Your task to perform on an android device: toggle improve location accuracy Image 0: 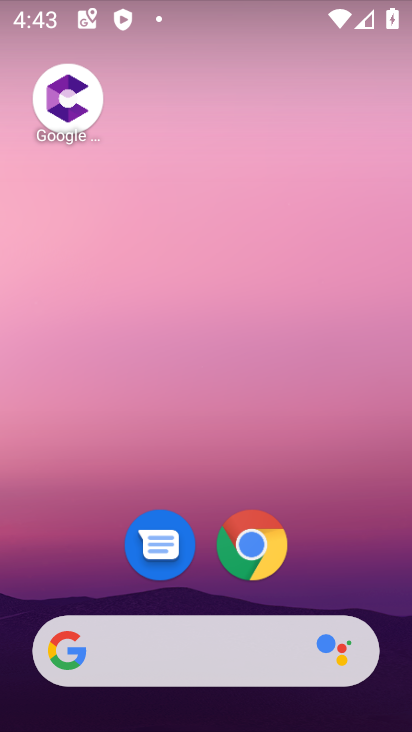
Step 0: drag from (345, 570) to (281, 55)
Your task to perform on an android device: toggle improve location accuracy Image 1: 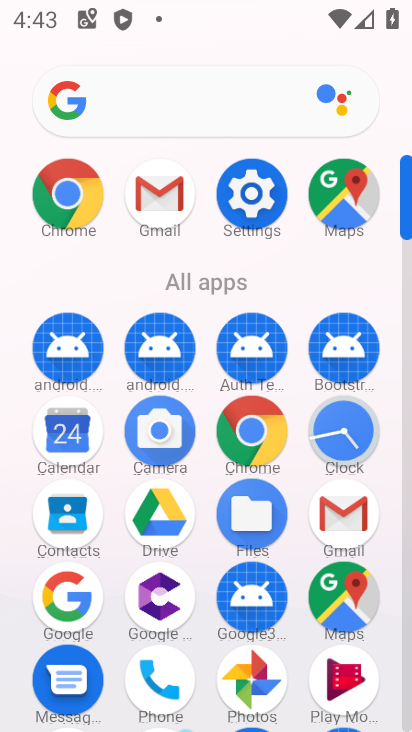
Step 1: drag from (14, 562) to (14, 186)
Your task to perform on an android device: toggle improve location accuracy Image 2: 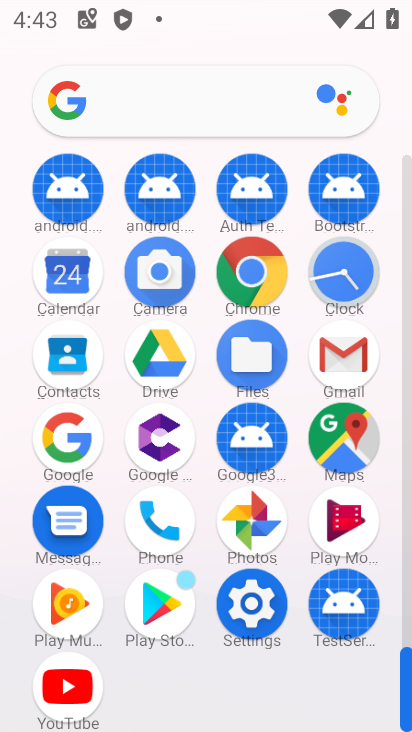
Step 2: click (255, 603)
Your task to perform on an android device: toggle improve location accuracy Image 3: 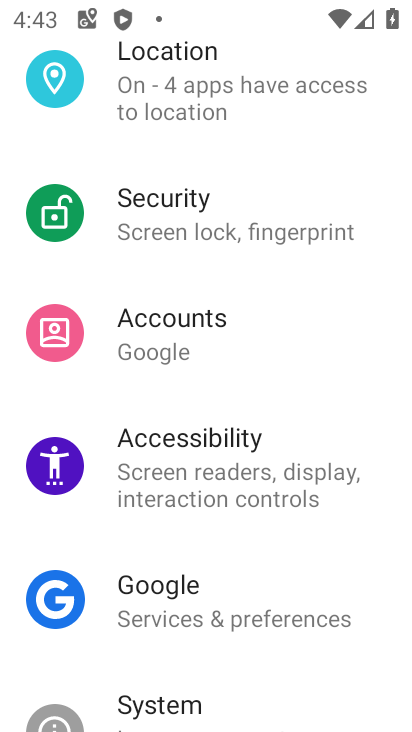
Step 3: drag from (276, 635) to (303, 217)
Your task to perform on an android device: toggle improve location accuracy Image 4: 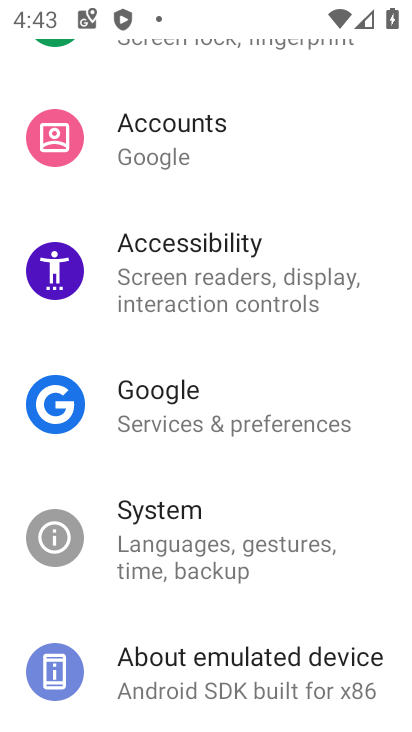
Step 4: drag from (257, 651) to (272, 265)
Your task to perform on an android device: toggle improve location accuracy Image 5: 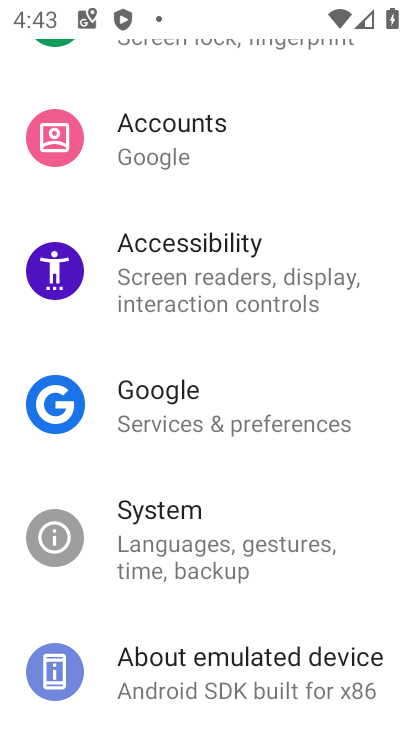
Step 5: drag from (228, 191) to (223, 625)
Your task to perform on an android device: toggle improve location accuracy Image 6: 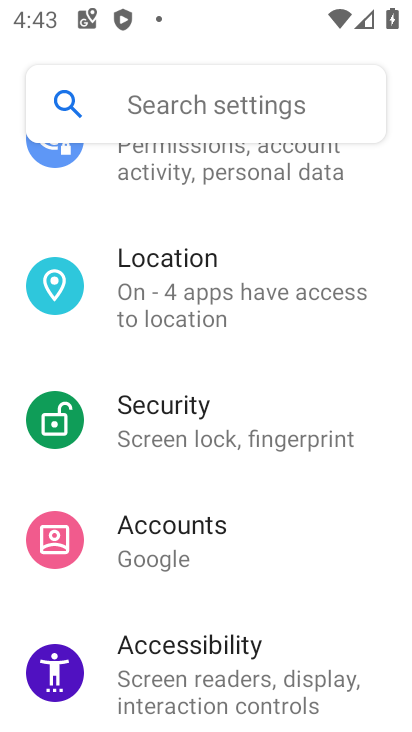
Step 6: click (209, 263)
Your task to perform on an android device: toggle improve location accuracy Image 7: 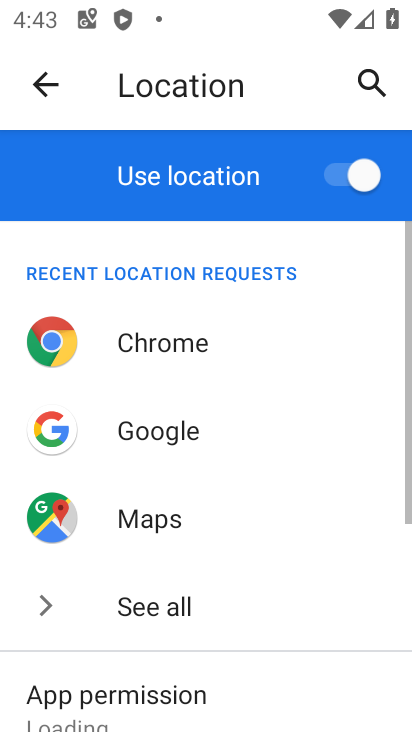
Step 7: drag from (286, 606) to (311, 111)
Your task to perform on an android device: toggle improve location accuracy Image 8: 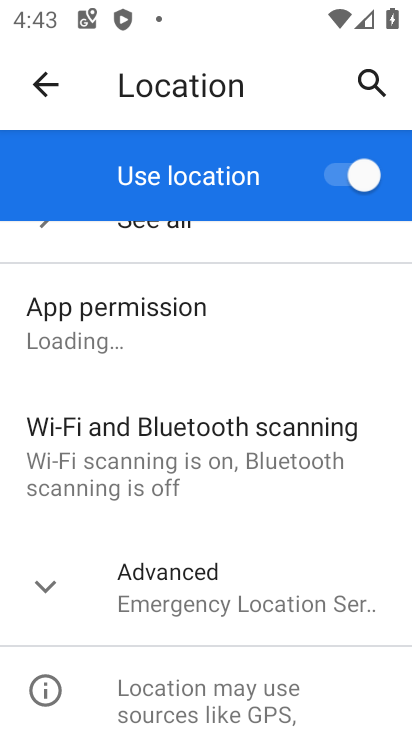
Step 8: drag from (246, 625) to (237, 410)
Your task to perform on an android device: toggle improve location accuracy Image 9: 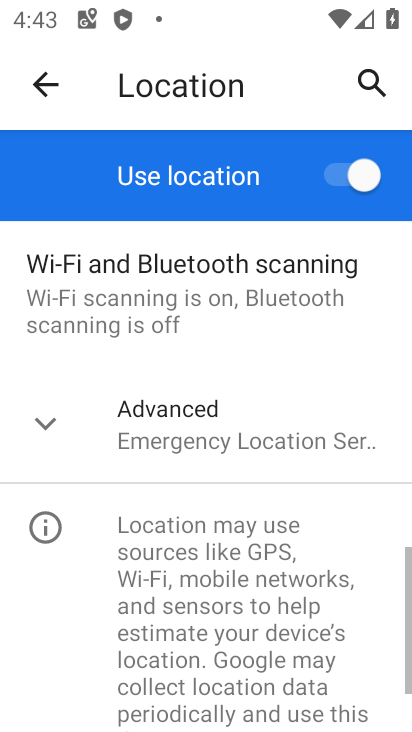
Step 9: click (51, 423)
Your task to perform on an android device: toggle improve location accuracy Image 10: 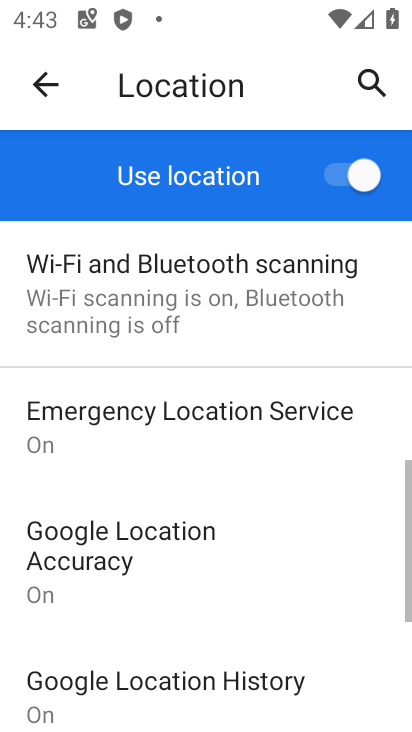
Step 10: drag from (293, 661) to (299, 277)
Your task to perform on an android device: toggle improve location accuracy Image 11: 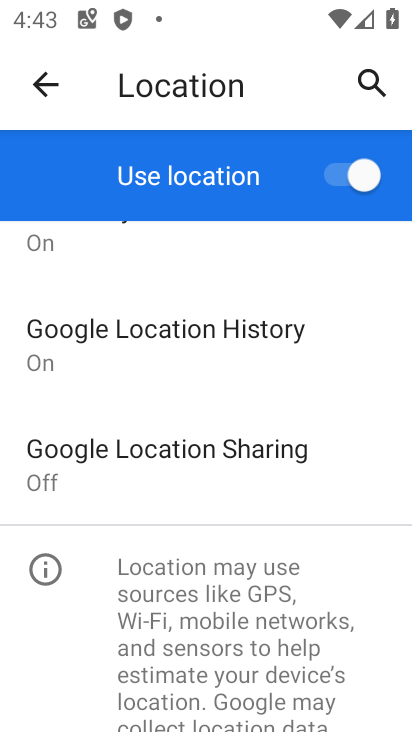
Step 11: drag from (227, 447) to (236, 731)
Your task to perform on an android device: toggle improve location accuracy Image 12: 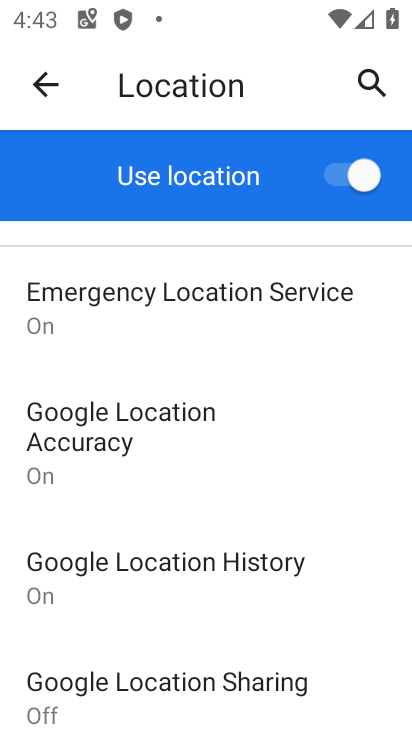
Step 12: drag from (204, 333) to (205, 615)
Your task to perform on an android device: toggle improve location accuracy Image 13: 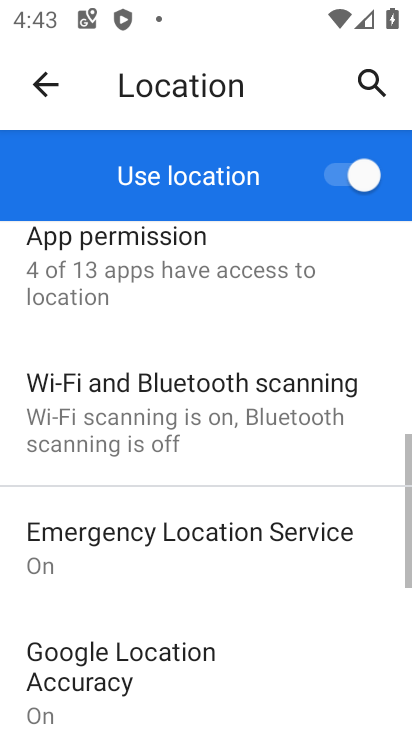
Step 13: click (106, 675)
Your task to perform on an android device: toggle improve location accuracy Image 14: 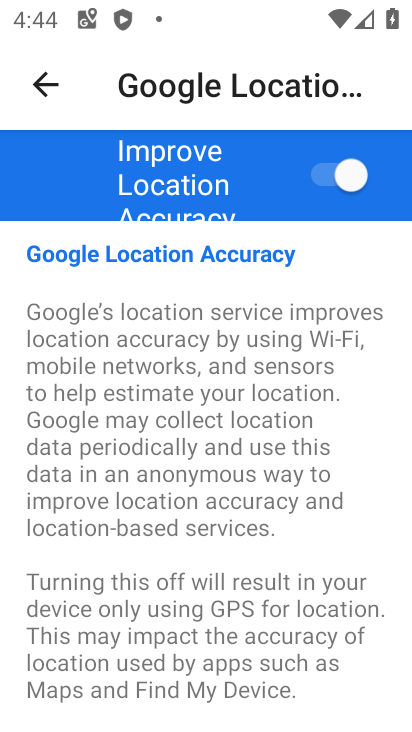
Step 14: drag from (256, 640) to (277, 555)
Your task to perform on an android device: toggle improve location accuracy Image 15: 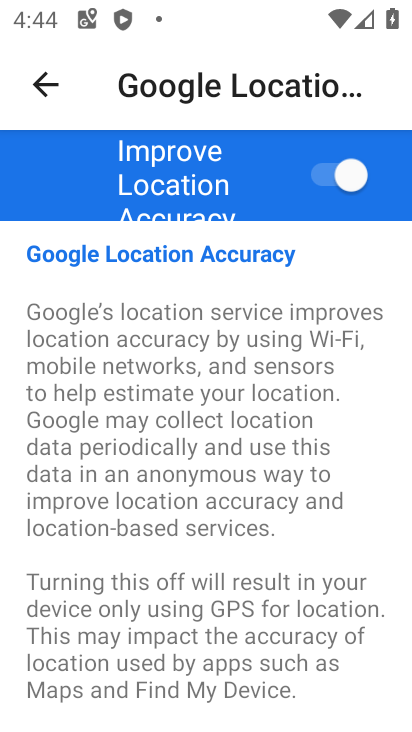
Step 15: click (327, 197)
Your task to perform on an android device: toggle improve location accuracy Image 16: 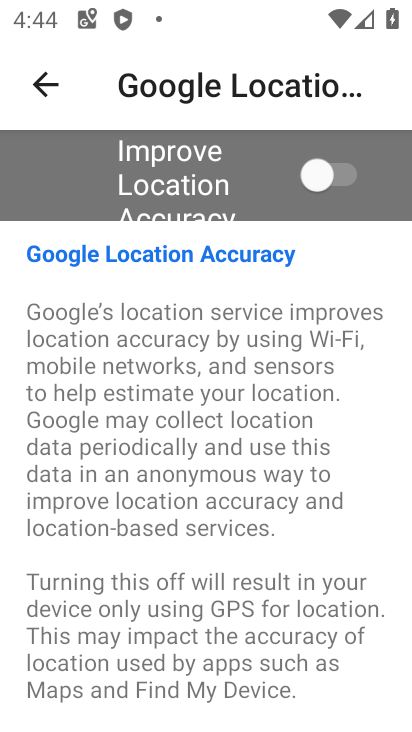
Step 16: task complete